Your task to perform on an android device: find snoozed emails in the gmail app Image 0: 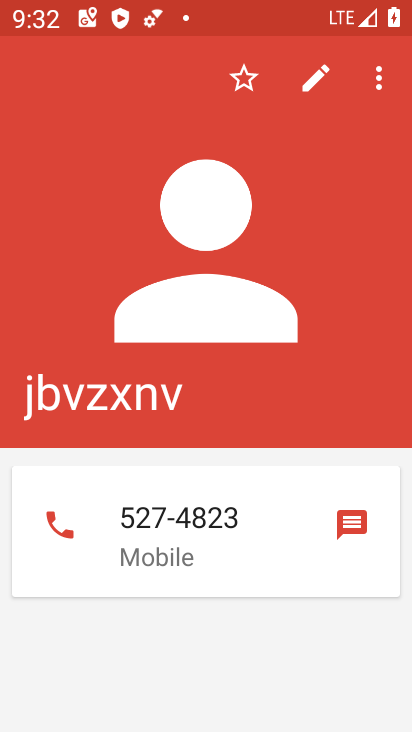
Step 0: press home button
Your task to perform on an android device: find snoozed emails in the gmail app Image 1: 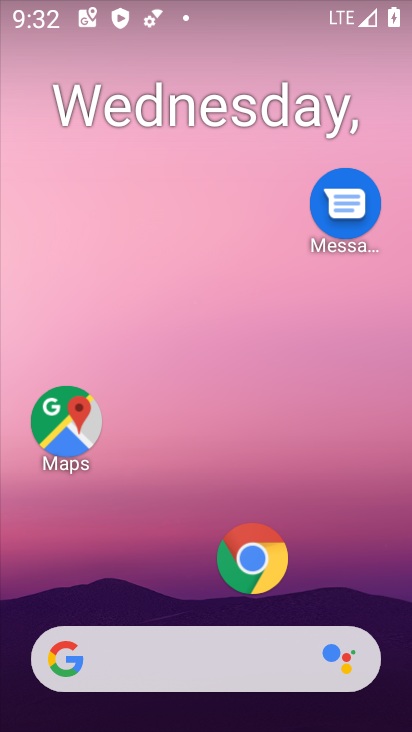
Step 1: drag from (189, 656) to (189, 177)
Your task to perform on an android device: find snoozed emails in the gmail app Image 2: 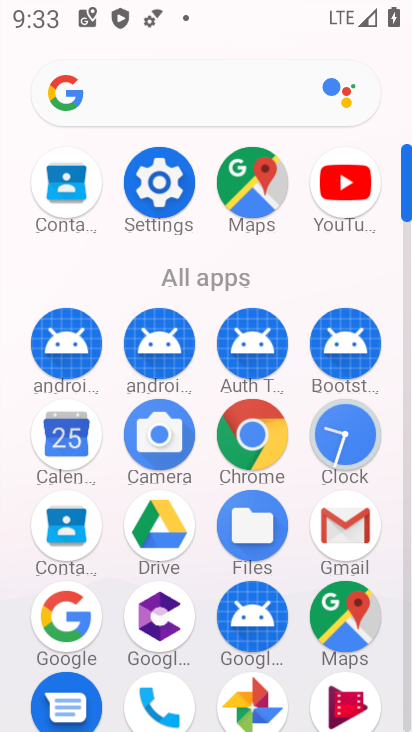
Step 2: click (345, 534)
Your task to perform on an android device: find snoozed emails in the gmail app Image 3: 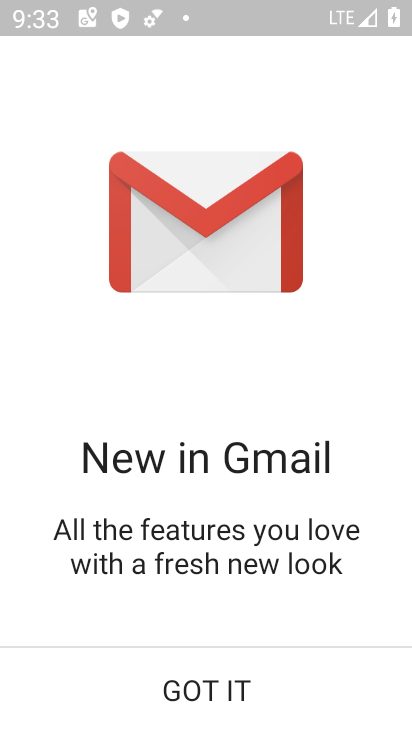
Step 3: click (238, 678)
Your task to perform on an android device: find snoozed emails in the gmail app Image 4: 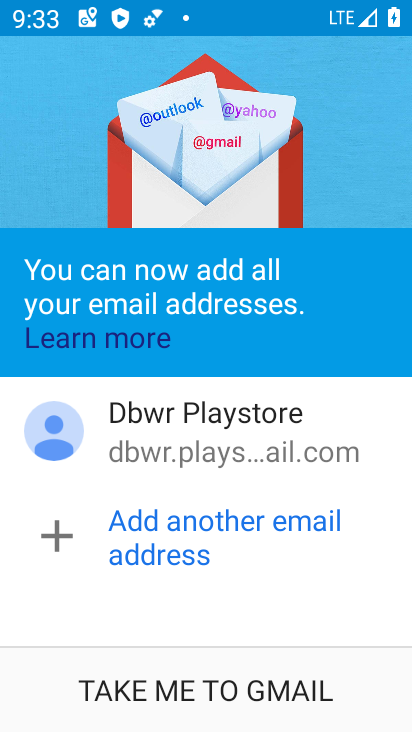
Step 4: click (238, 694)
Your task to perform on an android device: find snoozed emails in the gmail app Image 5: 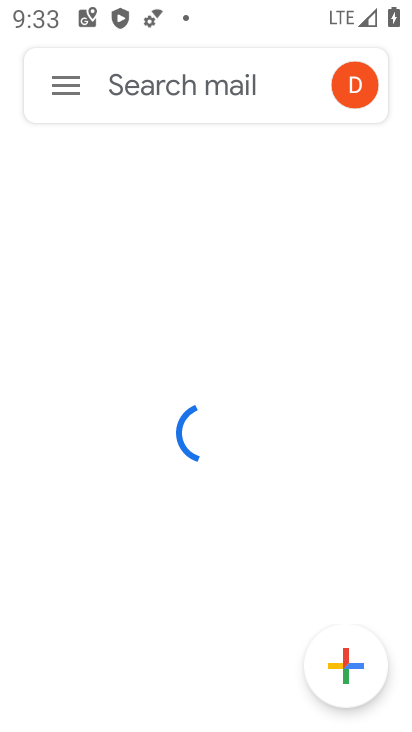
Step 5: click (71, 92)
Your task to perform on an android device: find snoozed emails in the gmail app Image 6: 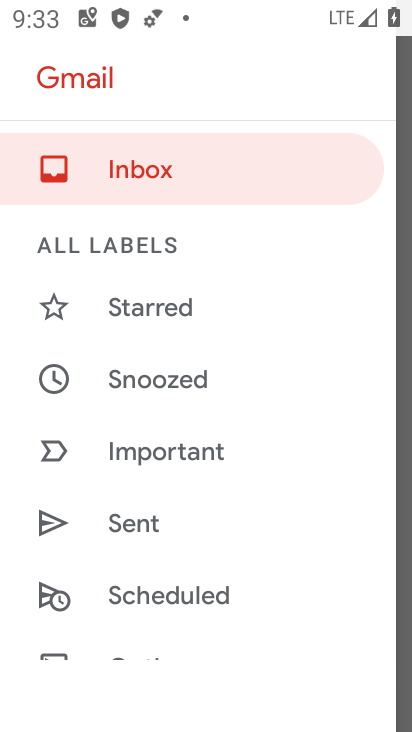
Step 6: click (140, 377)
Your task to perform on an android device: find snoozed emails in the gmail app Image 7: 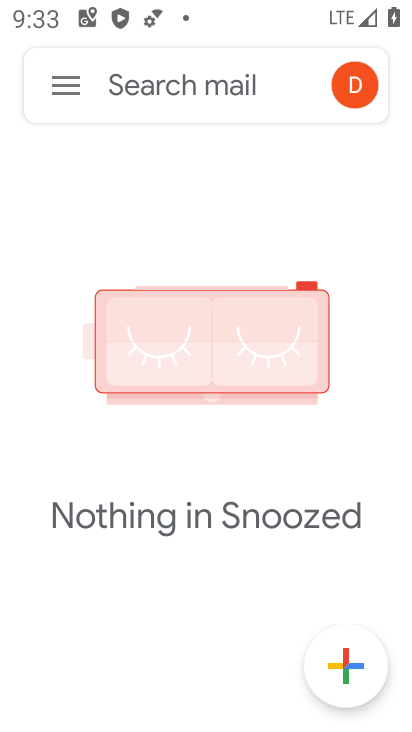
Step 7: task complete